Your task to perform on an android device: check data usage Image 0: 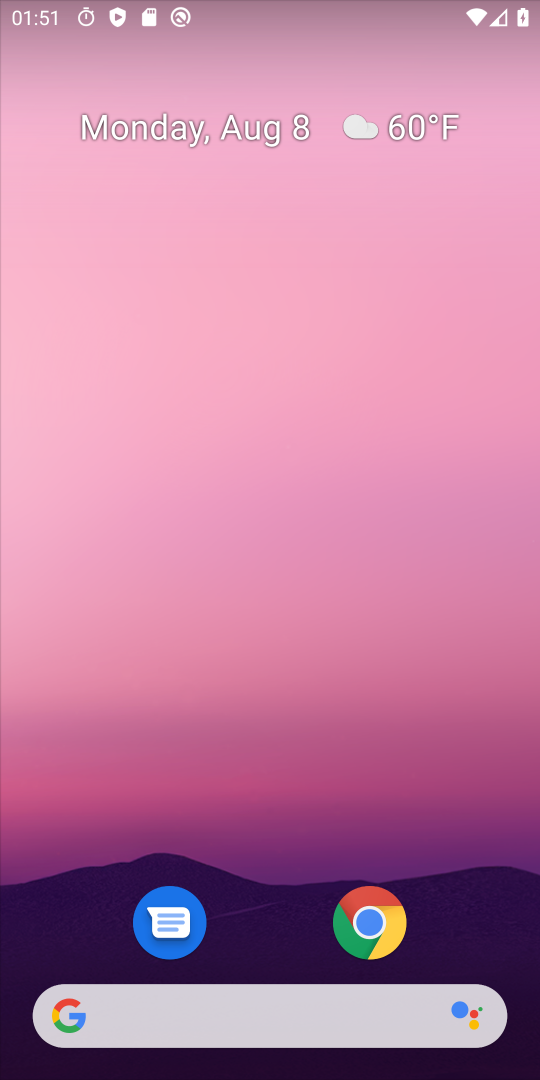
Step 0: drag from (285, 876) to (293, 195)
Your task to perform on an android device: check data usage Image 1: 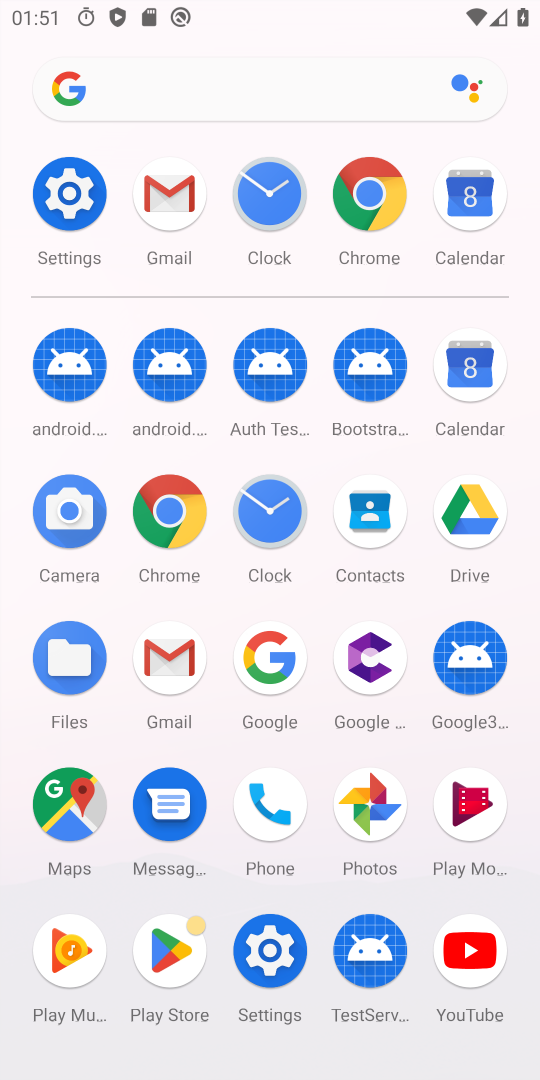
Step 1: click (82, 187)
Your task to perform on an android device: check data usage Image 2: 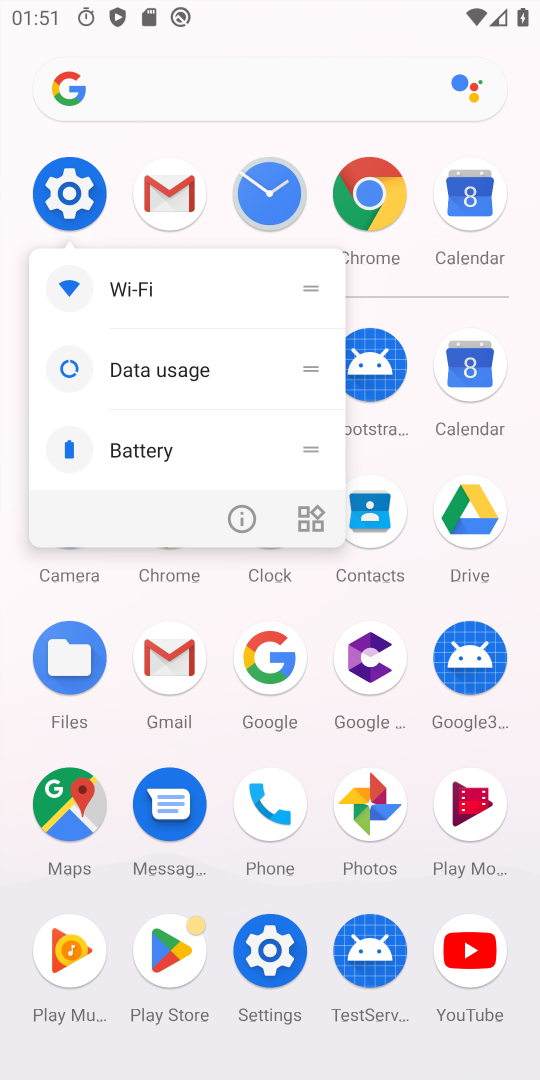
Step 2: click (80, 183)
Your task to perform on an android device: check data usage Image 3: 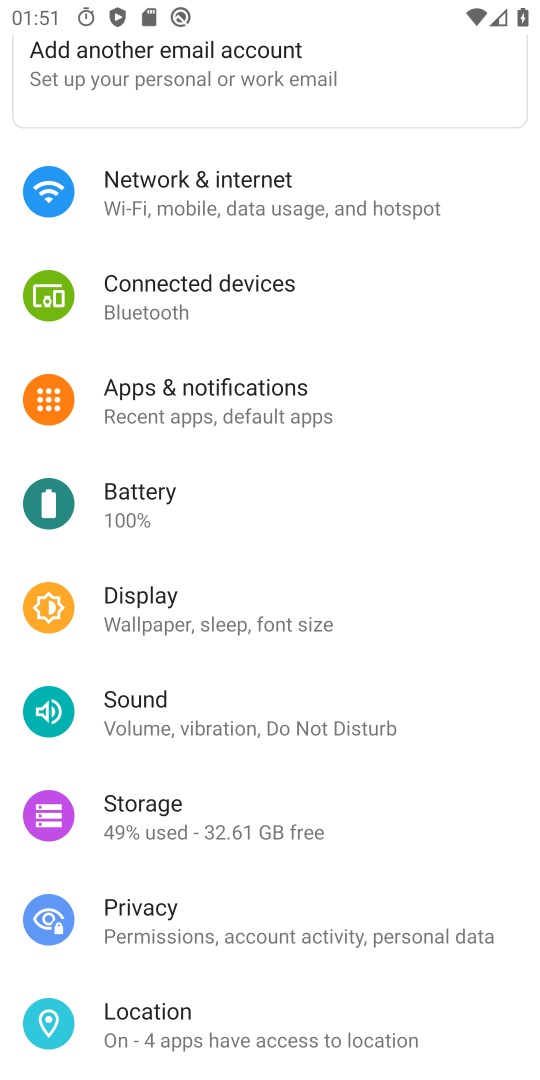
Step 3: click (235, 206)
Your task to perform on an android device: check data usage Image 4: 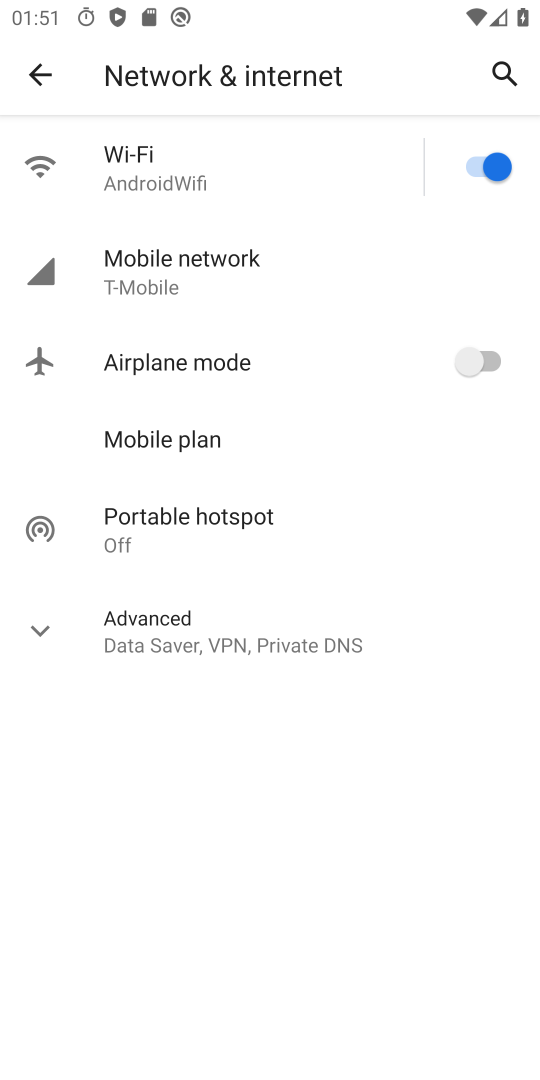
Step 4: click (251, 279)
Your task to perform on an android device: check data usage Image 5: 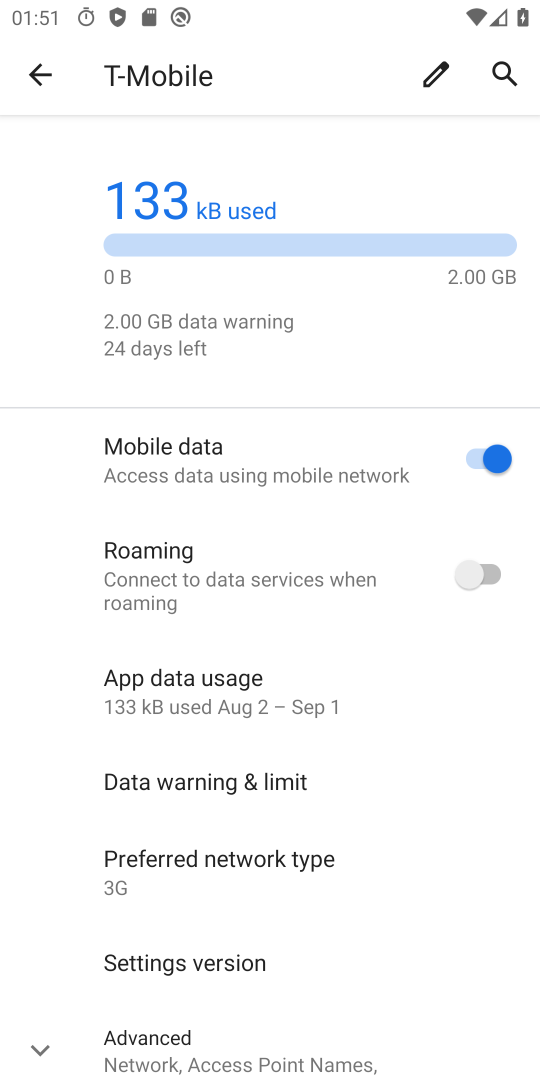
Step 5: task complete